Your task to perform on an android device: Go to battery settings Image 0: 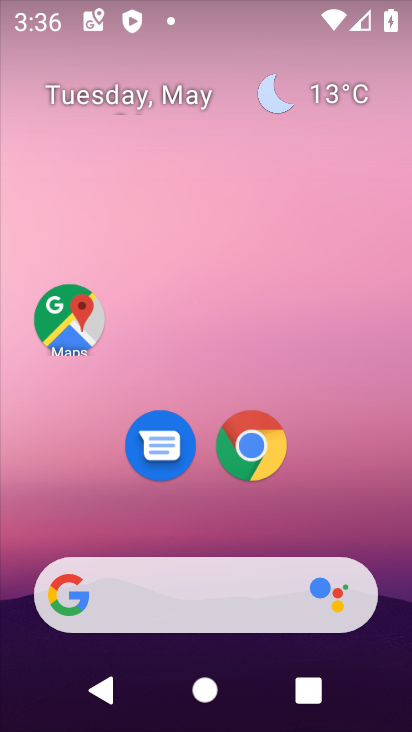
Step 0: drag from (210, 528) to (229, 26)
Your task to perform on an android device: Go to battery settings Image 1: 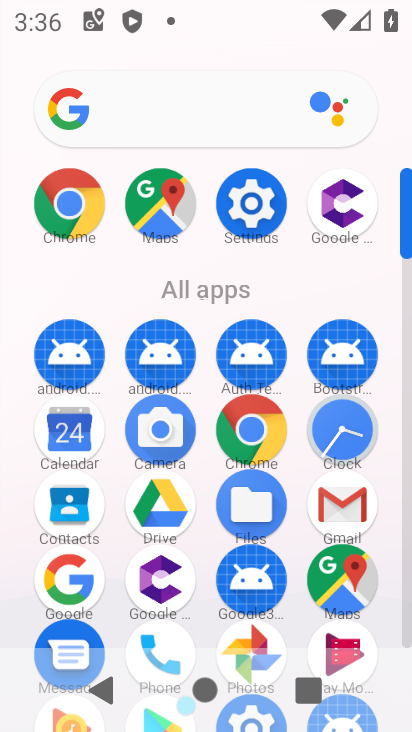
Step 1: click (251, 195)
Your task to perform on an android device: Go to battery settings Image 2: 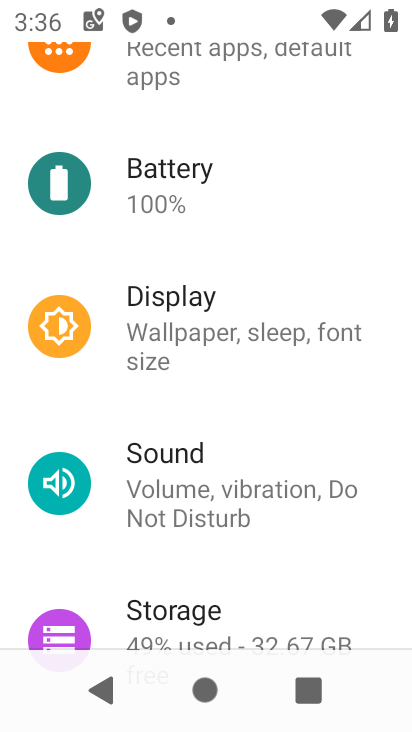
Step 2: click (197, 186)
Your task to perform on an android device: Go to battery settings Image 3: 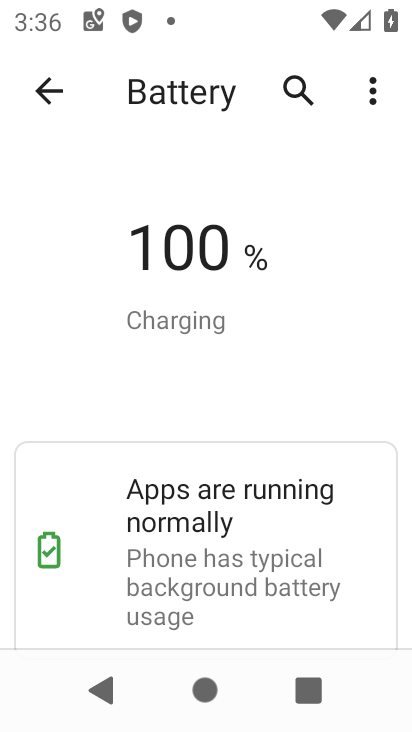
Step 3: task complete